Your task to perform on an android device: Open the stopwatch Image 0: 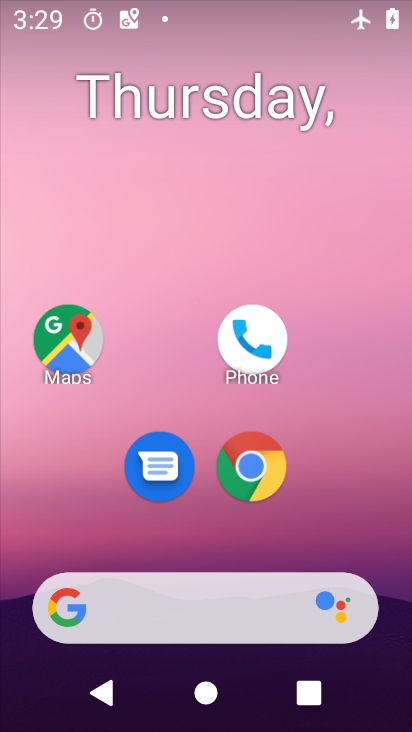
Step 0: drag from (199, 538) to (195, 164)
Your task to perform on an android device: Open the stopwatch Image 1: 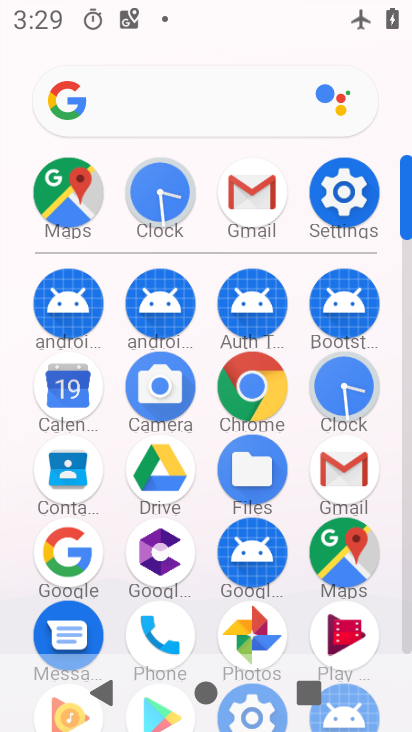
Step 1: click (347, 382)
Your task to perform on an android device: Open the stopwatch Image 2: 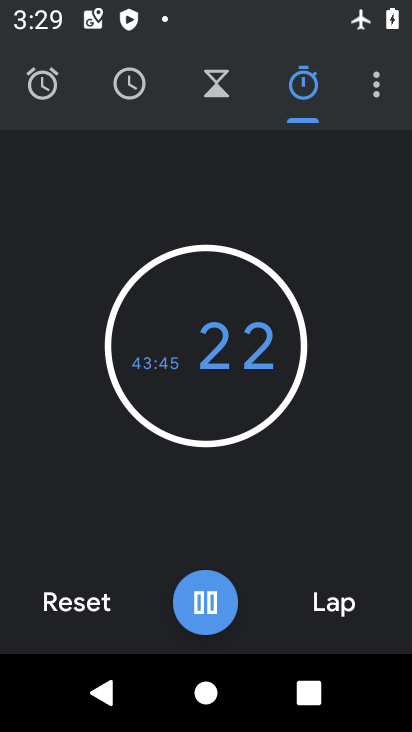
Step 2: task complete